Your task to perform on an android device: turn off data saver in the chrome app Image 0: 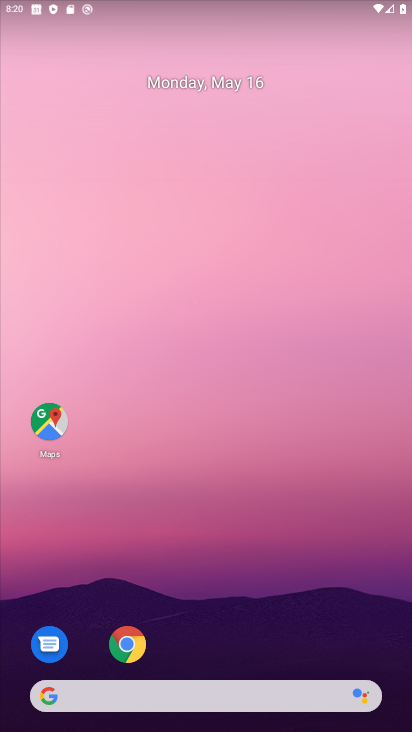
Step 0: click (137, 647)
Your task to perform on an android device: turn off data saver in the chrome app Image 1: 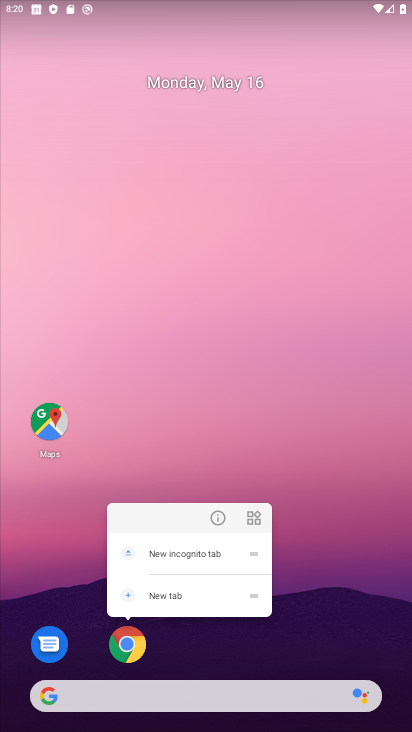
Step 1: click (137, 647)
Your task to perform on an android device: turn off data saver in the chrome app Image 2: 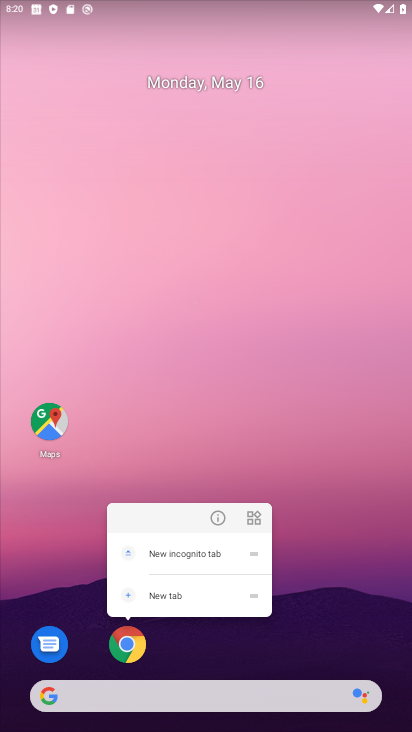
Step 2: click (137, 647)
Your task to perform on an android device: turn off data saver in the chrome app Image 3: 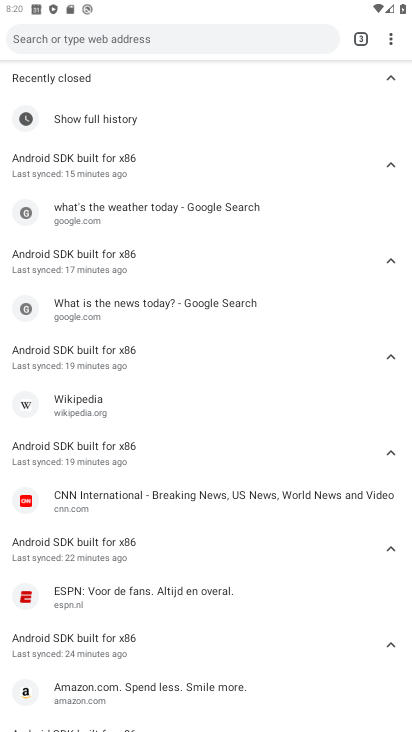
Step 3: click (394, 37)
Your task to perform on an android device: turn off data saver in the chrome app Image 4: 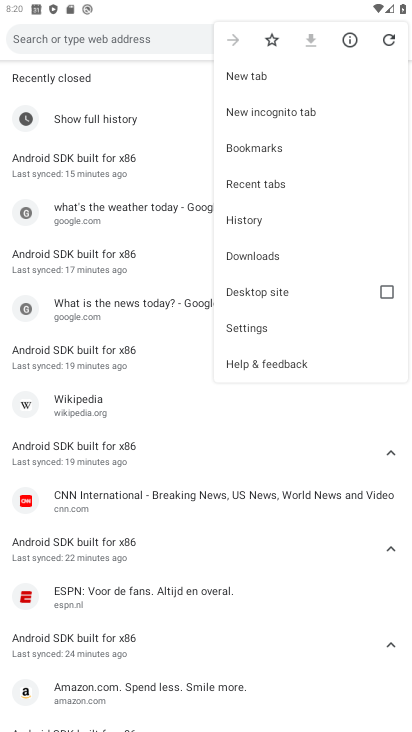
Step 4: click (271, 326)
Your task to perform on an android device: turn off data saver in the chrome app Image 5: 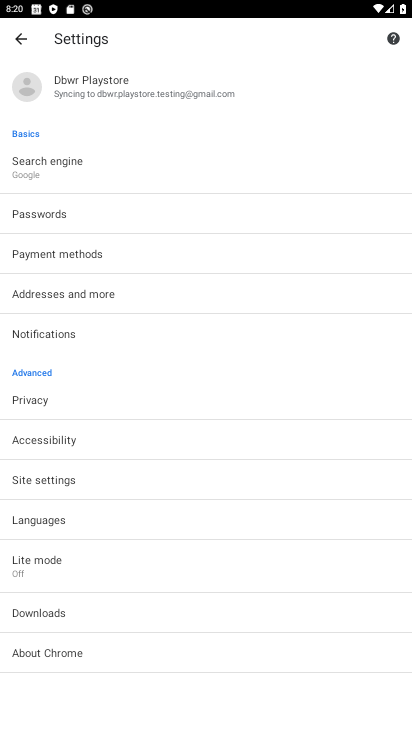
Step 5: click (71, 564)
Your task to perform on an android device: turn off data saver in the chrome app Image 6: 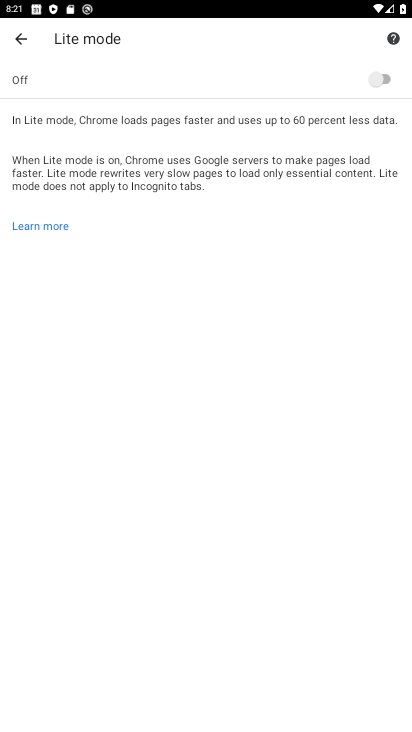
Step 6: task complete